Your task to perform on an android device: check storage Image 0: 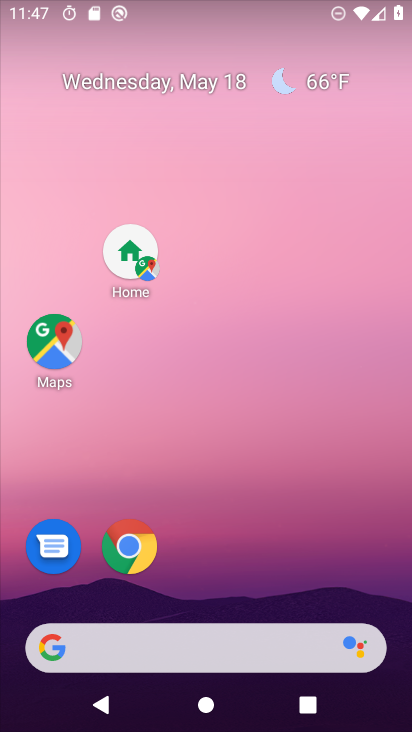
Step 0: drag from (218, 593) to (291, 62)
Your task to perform on an android device: check storage Image 1: 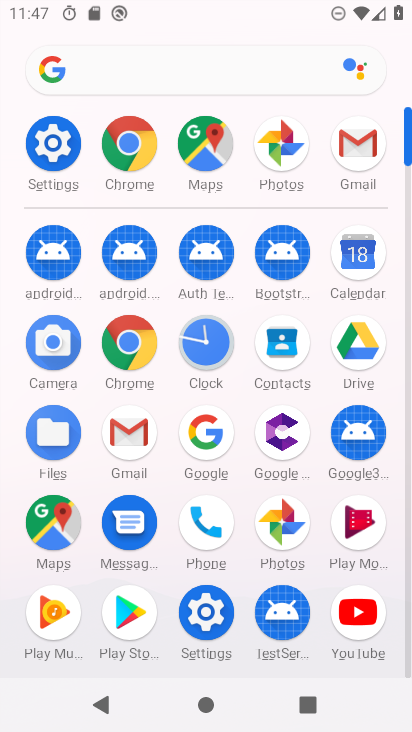
Step 1: click (43, 157)
Your task to perform on an android device: check storage Image 2: 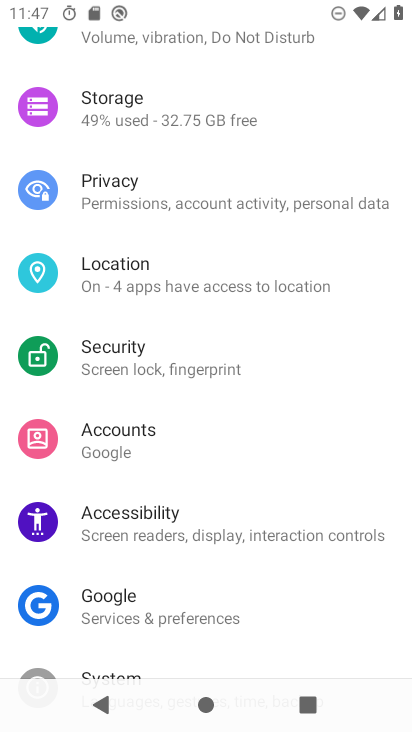
Step 2: click (212, 114)
Your task to perform on an android device: check storage Image 3: 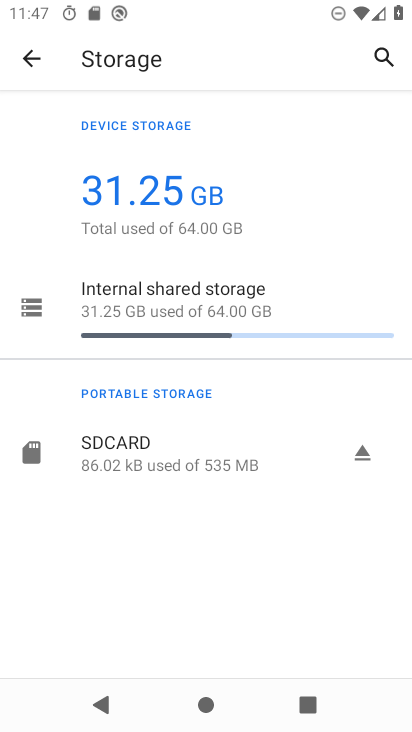
Step 3: task complete